Your task to perform on an android device: turn on bluetooth scan Image 0: 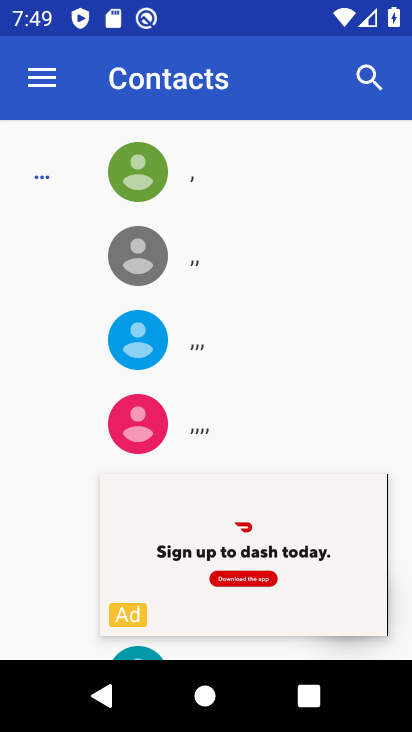
Step 0: press home button
Your task to perform on an android device: turn on bluetooth scan Image 1: 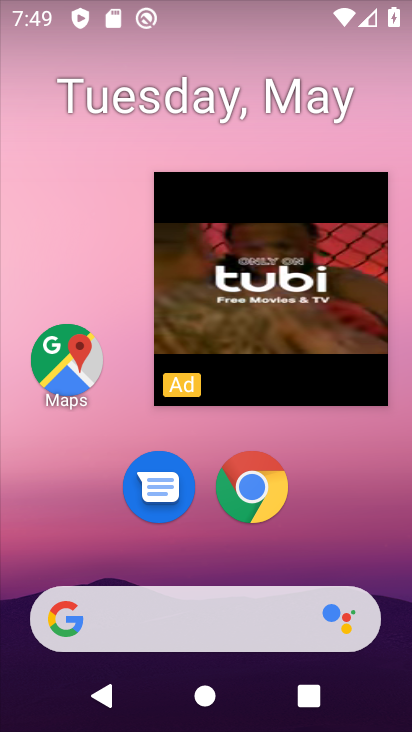
Step 1: drag from (362, 521) to (355, 70)
Your task to perform on an android device: turn on bluetooth scan Image 2: 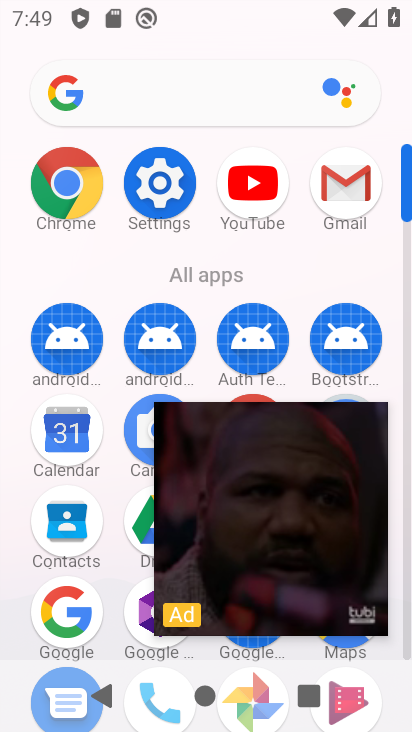
Step 2: click (157, 200)
Your task to perform on an android device: turn on bluetooth scan Image 3: 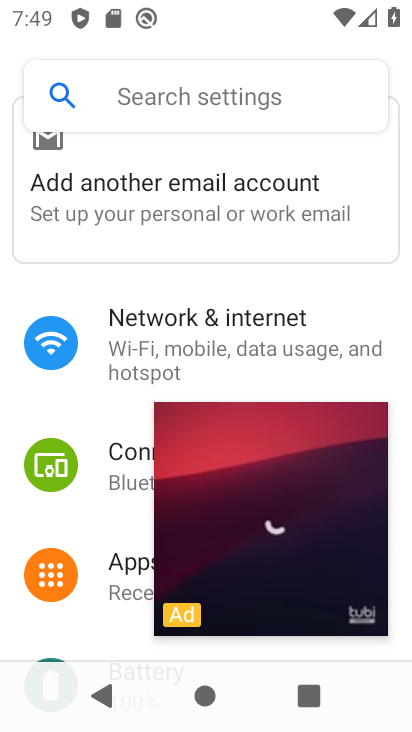
Step 3: drag from (125, 364) to (144, 195)
Your task to perform on an android device: turn on bluetooth scan Image 4: 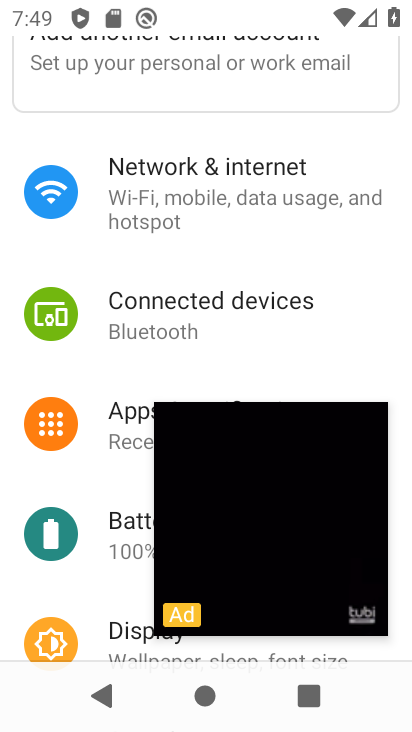
Step 4: drag from (124, 279) to (151, 132)
Your task to perform on an android device: turn on bluetooth scan Image 5: 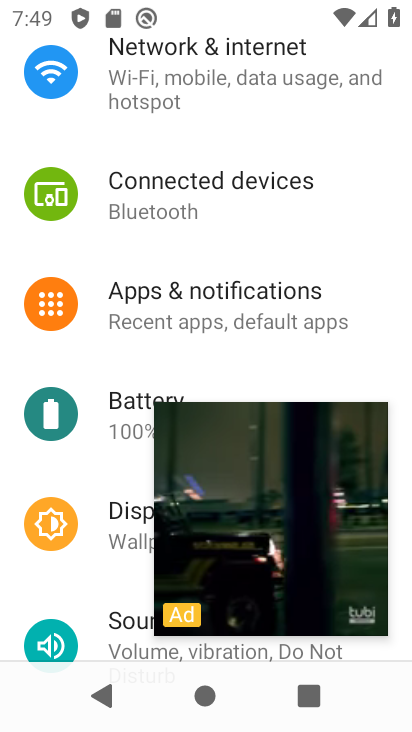
Step 5: drag from (145, 353) to (169, 196)
Your task to perform on an android device: turn on bluetooth scan Image 6: 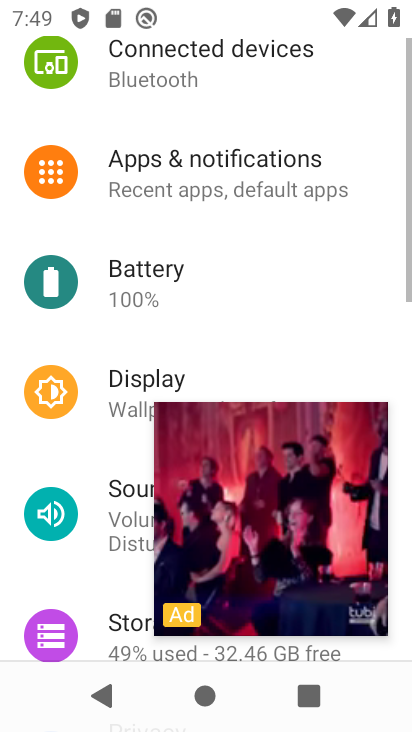
Step 6: drag from (133, 370) to (160, 190)
Your task to perform on an android device: turn on bluetooth scan Image 7: 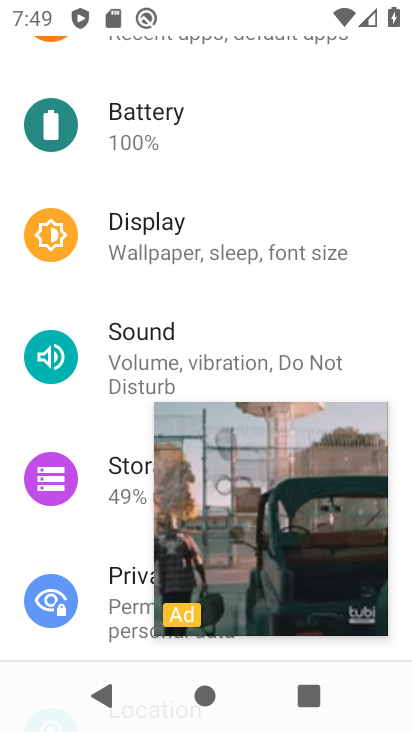
Step 7: drag from (118, 528) to (147, 291)
Your task to perform on an android device: turn on bluetooth scan Image 8: 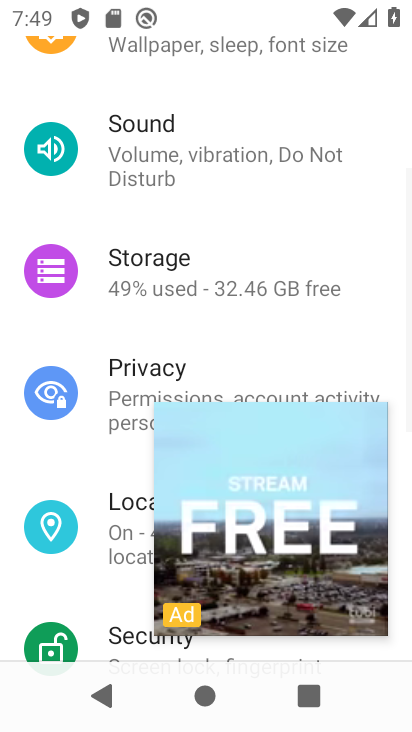
Step 8: drag from (130, 471) to (171, 249)
Your task to perform on an android device: turn on bluetooth scan Image 9: 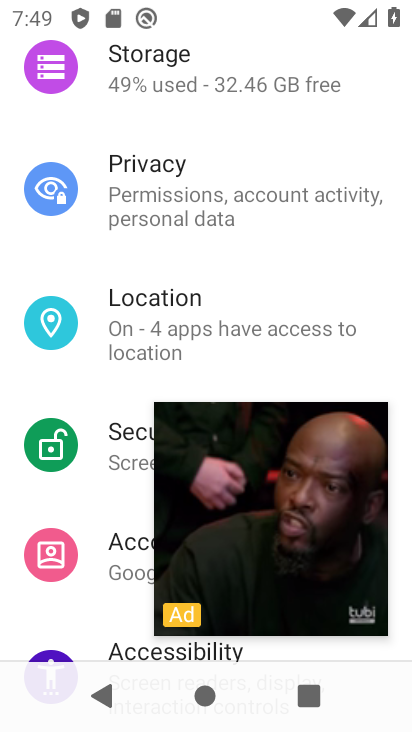
Step 9: click (184, 319)
Your task to perform on an android device: turn on bluetooth scan Image 10: 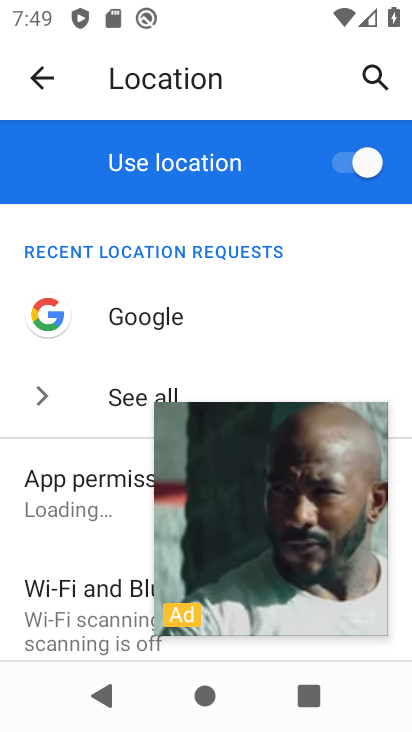
Step 10: drag from (123, 528) to (113, 133)
Your task to perform on an android device: turn on bluetooth scan Image 11: 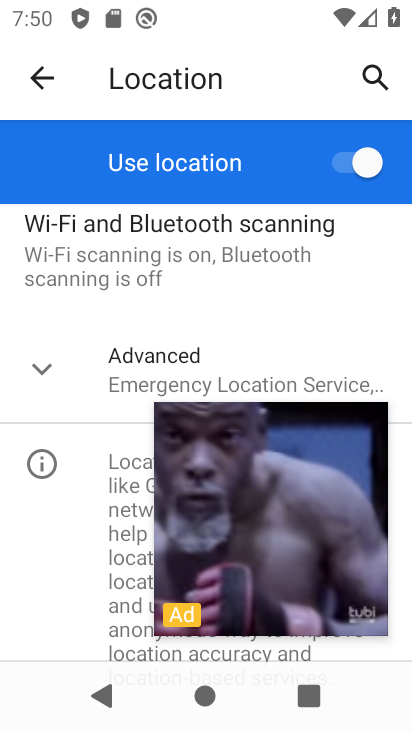
Step 11: click (166, 237)
Your task to perform on an android device: turn on bluetooth scan Image 12: 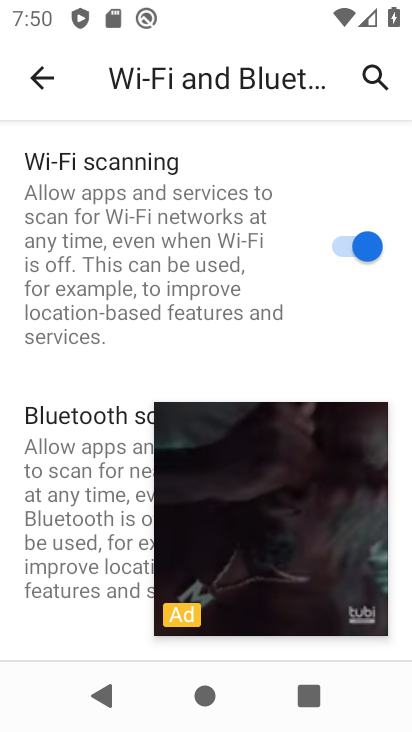
Step 12: drag from (317, 354) to (320, 147)
Your task to perform on an android device: turn on bluetooth scan Image 13: 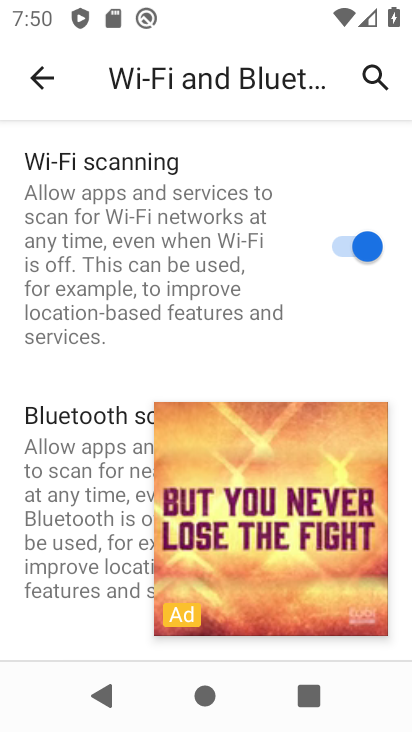
Step 13: drag from (265, 460) to (119, 713)
Your task to perform on an android device: turn on bluetooth scan Image 14: 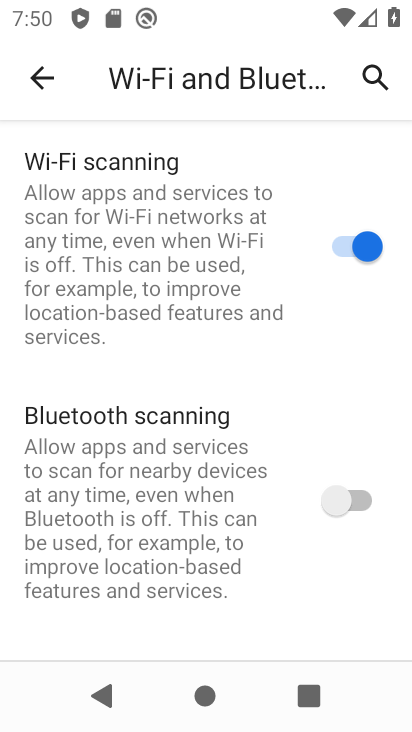
Step 14: click (351, 504)
Your task to perform on an android device: turn on bluetooth scan Image 15: 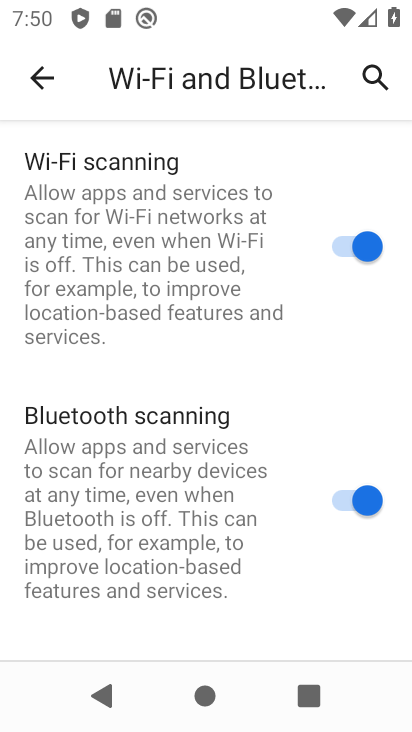
Step 15: task complete